Your task to perform on an android device: Open the phone app and click the voicemail tab. Image 0: 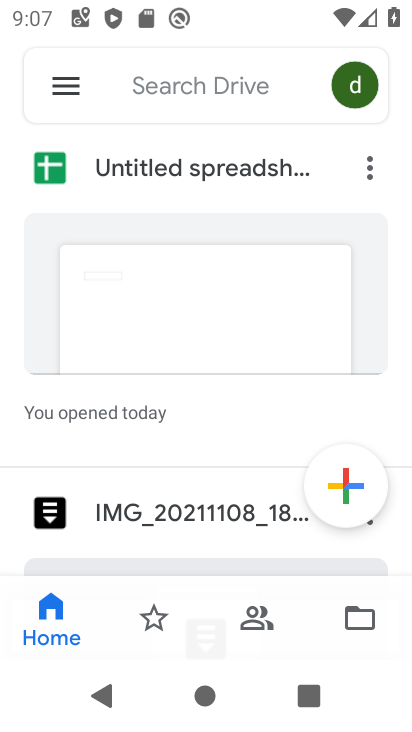
Step 0: press home button
Your task to perform on an android device: Open the phone app and click the voicemail tab. Image 1: 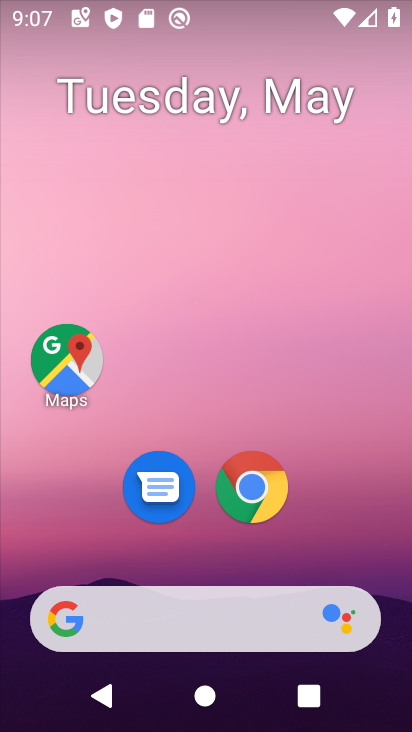
Step 1: drag from (374, 552) to (367, 303)
Your task to perform on an android device: Open the phone app and click the voicemail tab. Image 2: 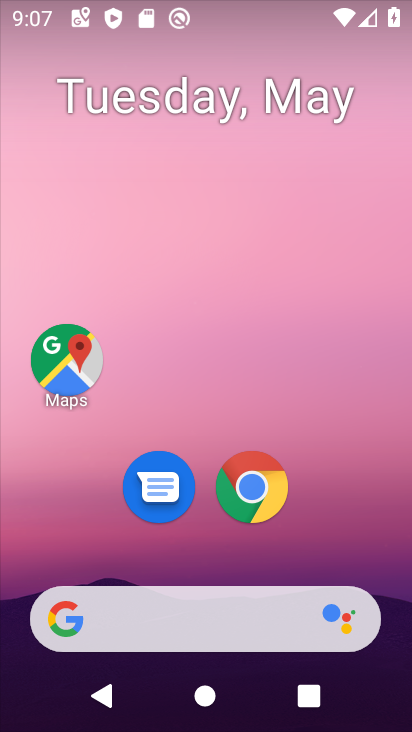
Step 2: drag from (363, 557) to (364, 269)
Your task to perform on an android device: Open the phone app and click the voicemail tab. Image 3: 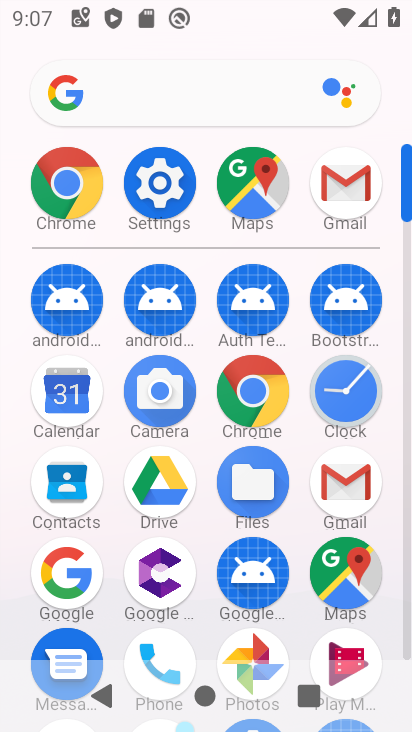
Step 3: drag from (291, 612) to (301, 406)
Your task to perform on an android device: Open the phone app and click the voicemail tab. Image 4: 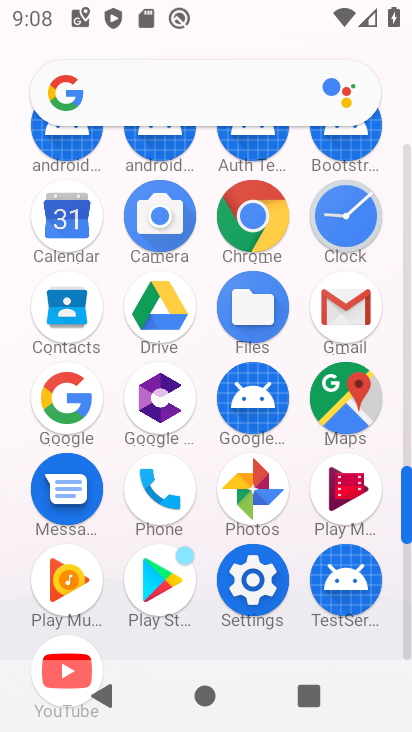
Step 4: click (359, 508)
Your task to perform on an android device: Open the phone app and click the voicemail tab. Image 5: 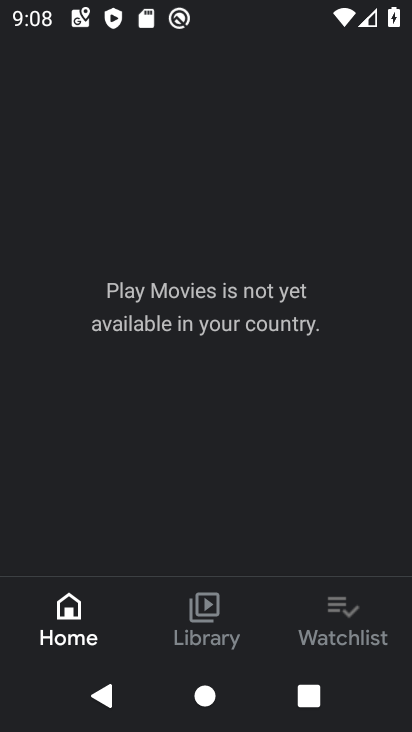
Step 5: click (365, 622)
Your task to perform on an android device: Open the phone app and click the voicemail tab. Image 6: 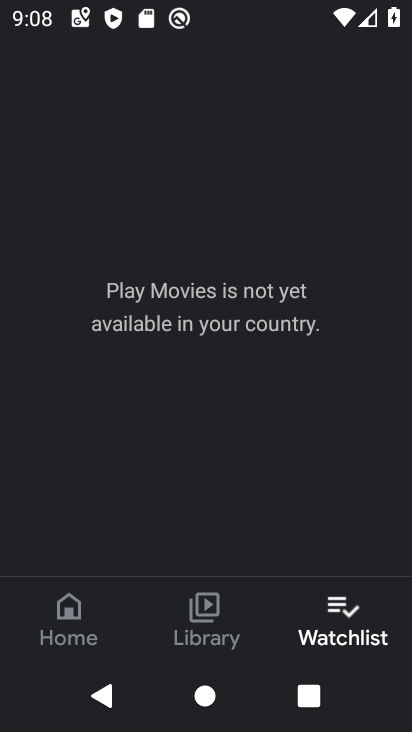
Step 6: task complete